Your task to perform on an android device: Turn off the flashlight Image 0: 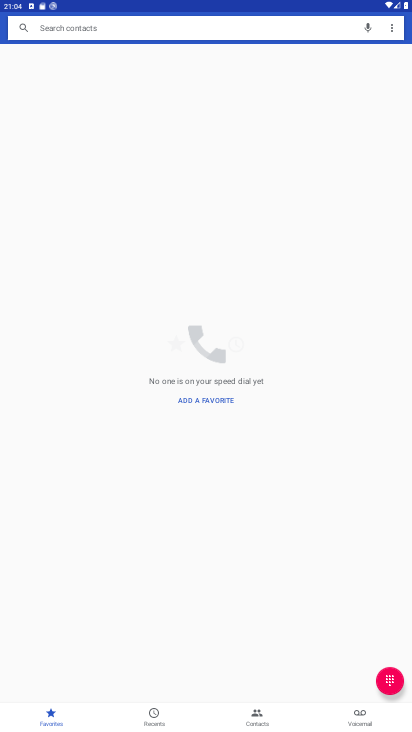
Step 0: press home button
Your task to perform on an android device: Turn off the flashlight Image 1: 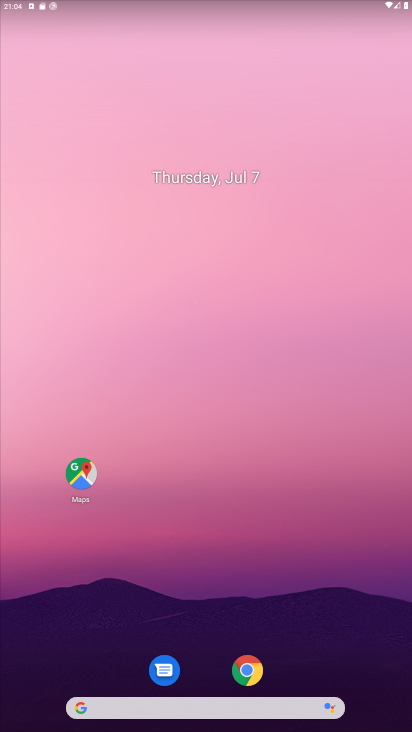
Step 1: task complete